Your task to perform on an android device: Open the calendar app, open the side menu, and click the "Day" option Image 0: 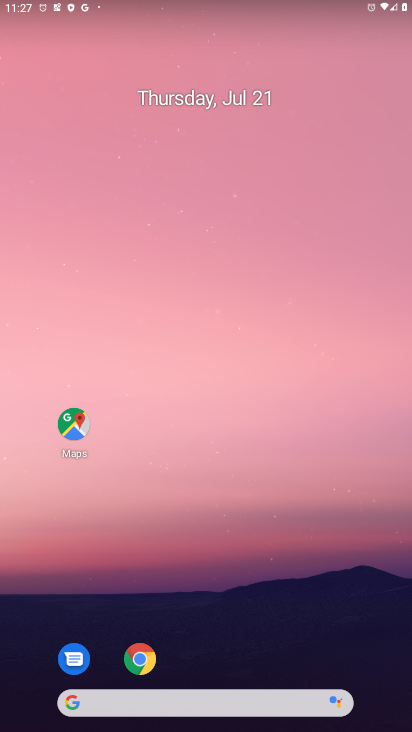
Step 0: drag from (213, 696) to (162, 135)
Your task to perform on an android device: Open the calendar app, open the side menu, and click the "Day" option Image 1: 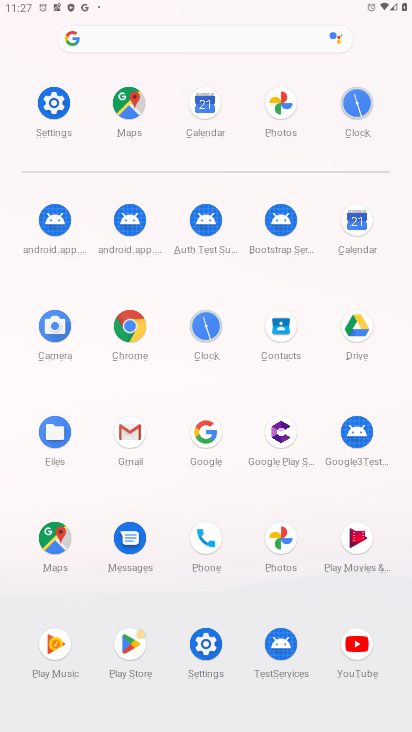
Step 1: click (349, 212)
Your task to perform on an android device: Open the calendar app, open the side menu, and click the "Day" option Image 2: 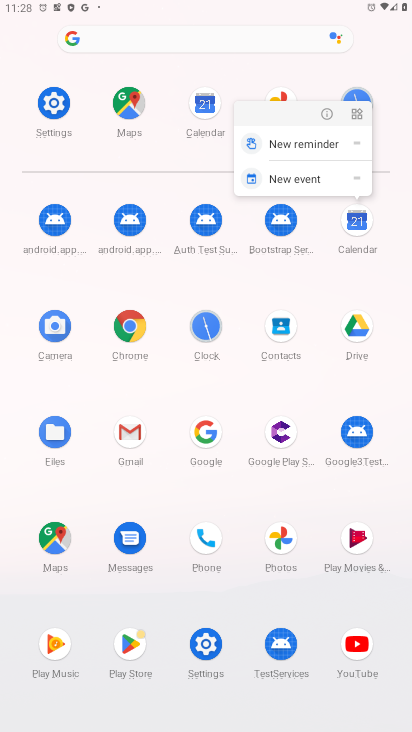
Step 2: click (356, 220)
Your task to perform on an android device: Open the calendar app, open the side menu, and click the "Day" option Image 3: 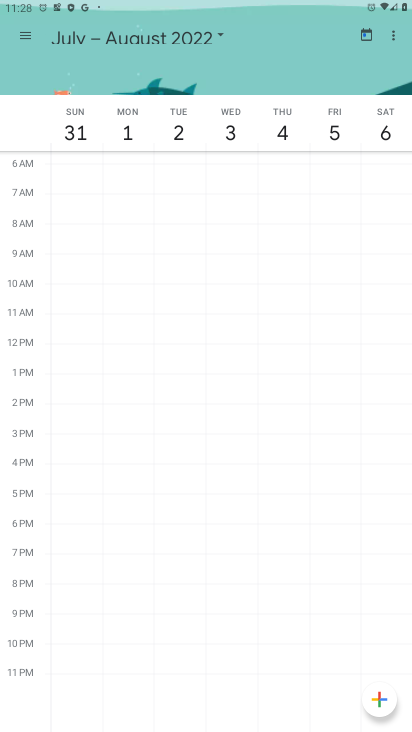
Step 3: click (26, 39)
Your task to perform on an android device: Open the calendar app, open the side menu, and click the "Day" option Image 4: 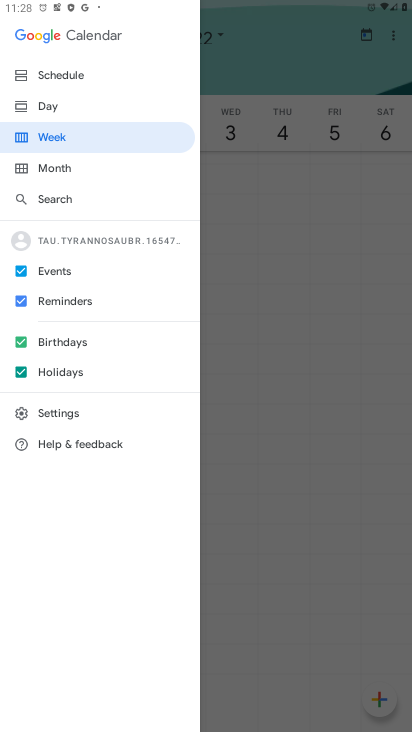
Step 4: click (29, 100)
Your task to perform on an android device: Open the calendar app, open the side menu, and click the "Day" option Image 5: 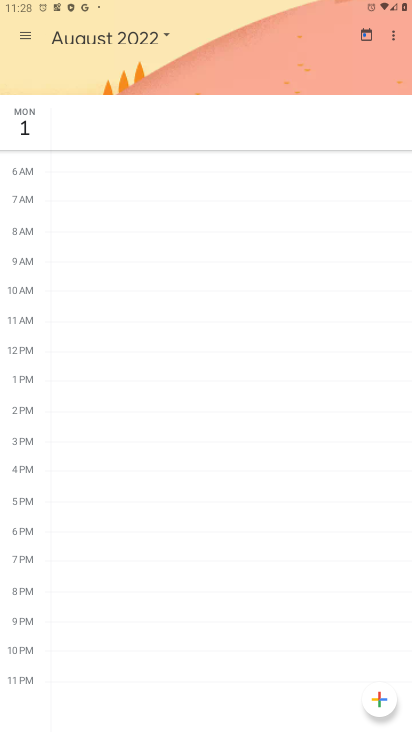
Step 5: task complete